Your task to perform on an android device: What's the weather today? Image 0: 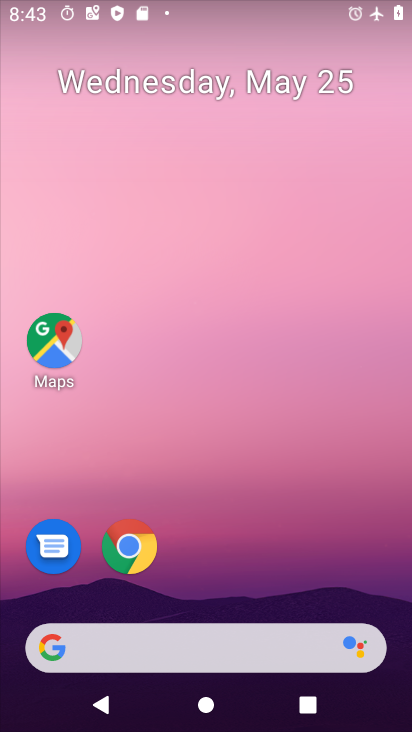
Step 0: click (187, 665)
Your task to perform on an android device: What's the weather today? Image 1: 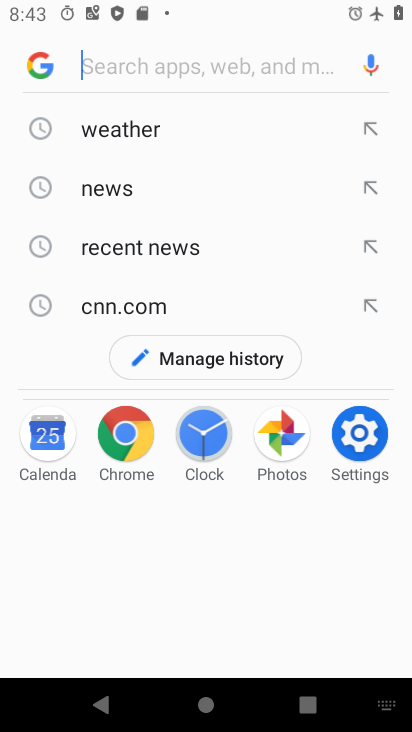
Step 1: click (104, 136)
Your task to perform on an android device: What's the weather today? Image 2: 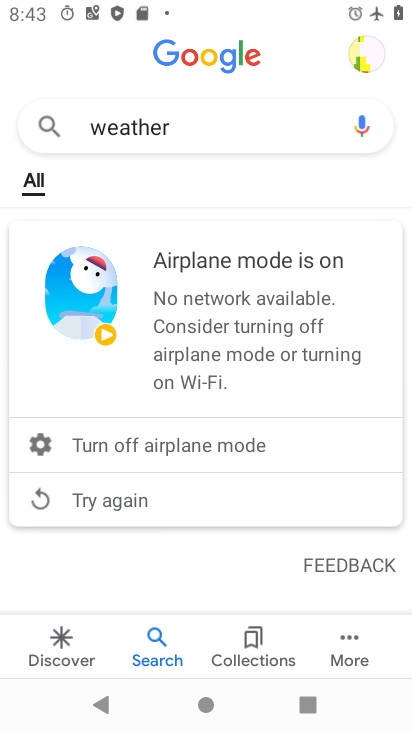
Step 2: task complete